Your task to perform on an android device: set default search engine in the chrome app Image 0: 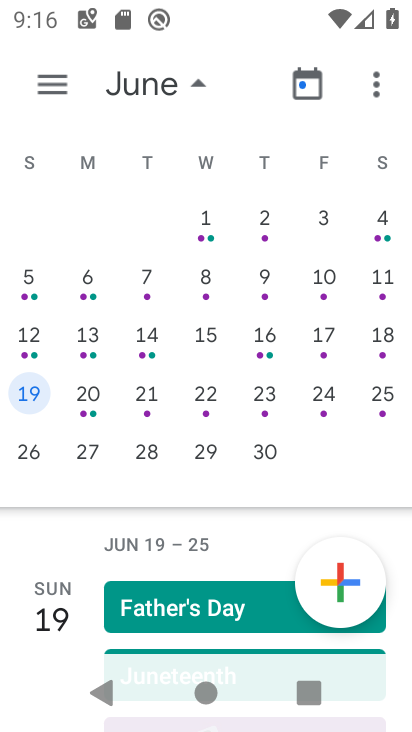
Step 0: press home button
Your task to perform on an android device: set default search engine in the chrome app Image 1: 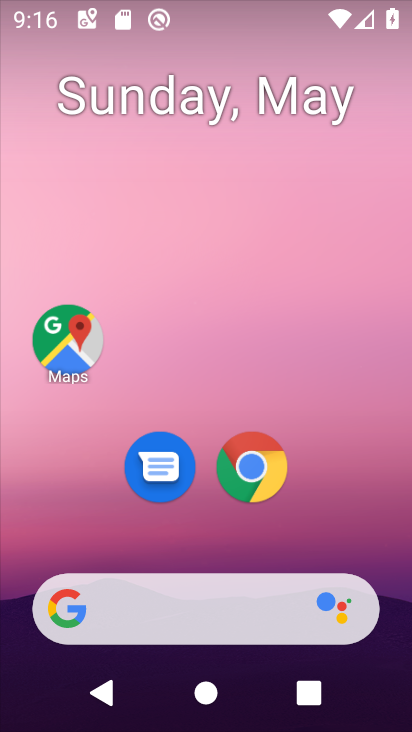
Step 1: drag from (385, 537) to (356, 164)
Your task to perform on an android device: set default search engine in the chrome app Image 2: 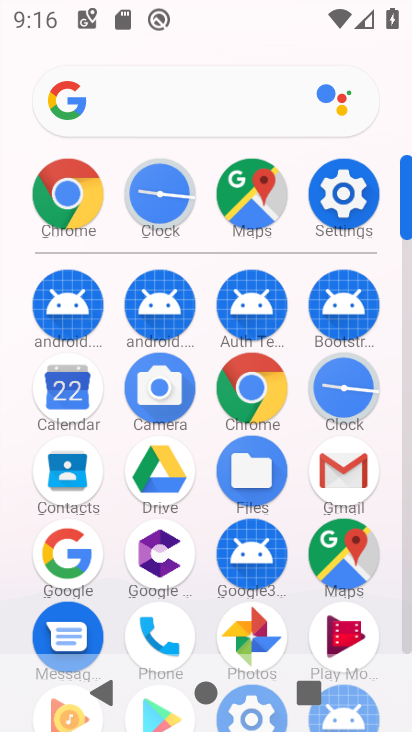
Step 2: click (264, 392)
Your task to perform on an android device: set default search engine in the chrome app Image 3: 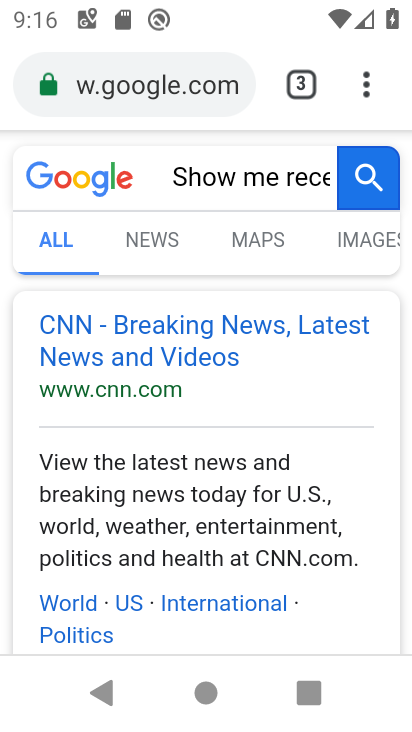
Step 3: drag from (357, 97) to (165, 539)
Your task to perform on an android device: set default search engine in the chrome app Image 4: 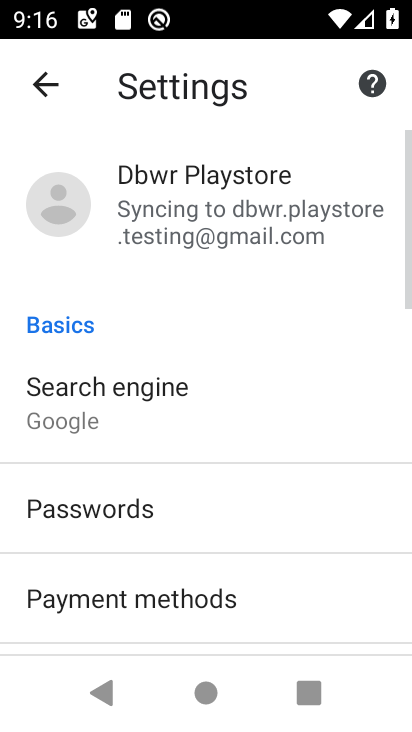
Step 4: click (162, 420)
Your task to perform on an android device: set default search engine in the chrome app Image 5: 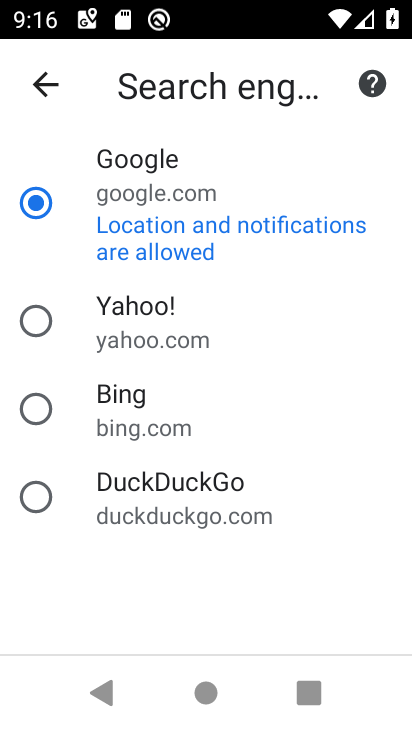
Step 5: click (144, 325)
Your task to perform on an android device: set default search engine in the chrome app Image 6: 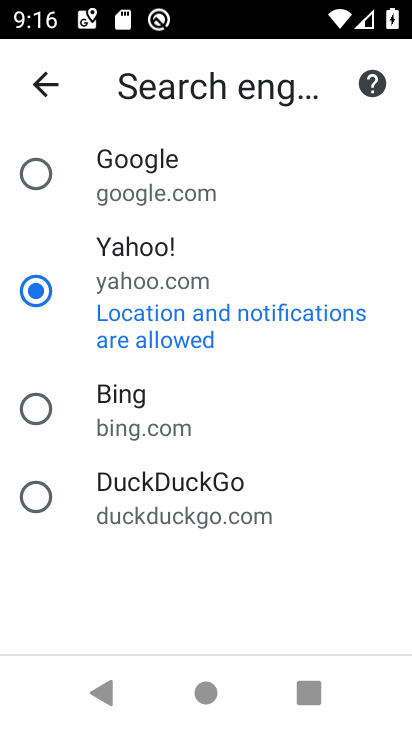
Step 6: task complete